Your task to perform on an android device: empty trash in the gmail app Image 0: 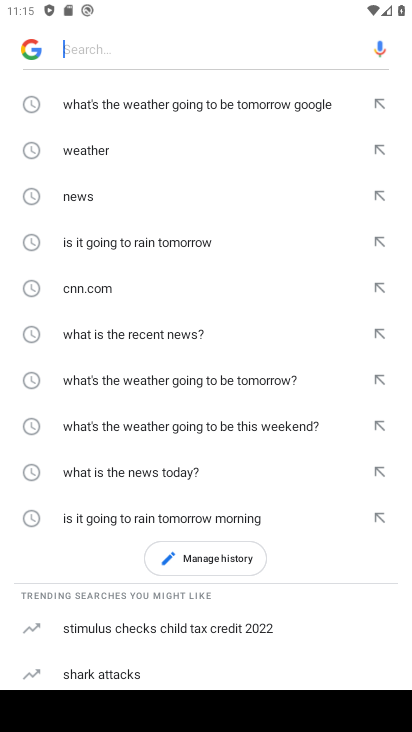
Step 0: press home button
Your task to perform on an android device: empty trash in the gmail app Image 1: 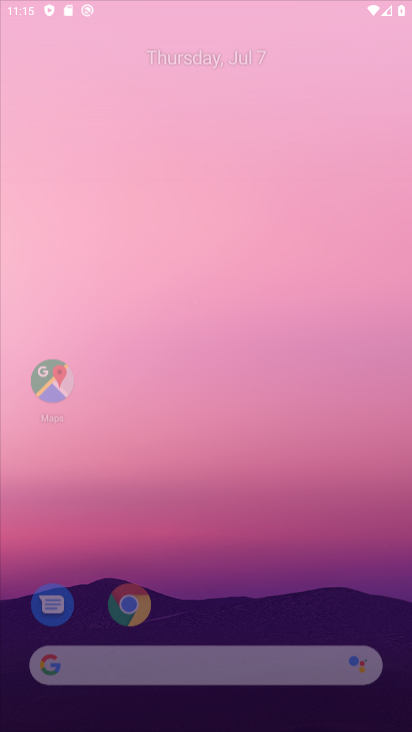
Step 1: drag from (383, 680) to (276, 64)
Your task to perform on an android device: empty trash in the gmail app Image 2: 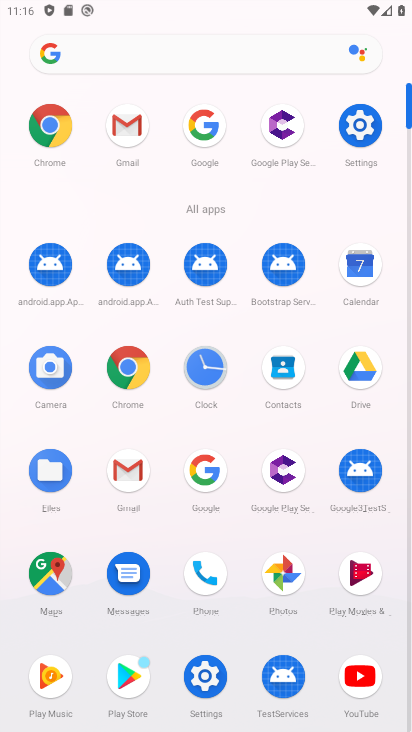
Step 2: click (113, 475)
Your task to perform on an android device: empty trash in the gmail app Image 3: 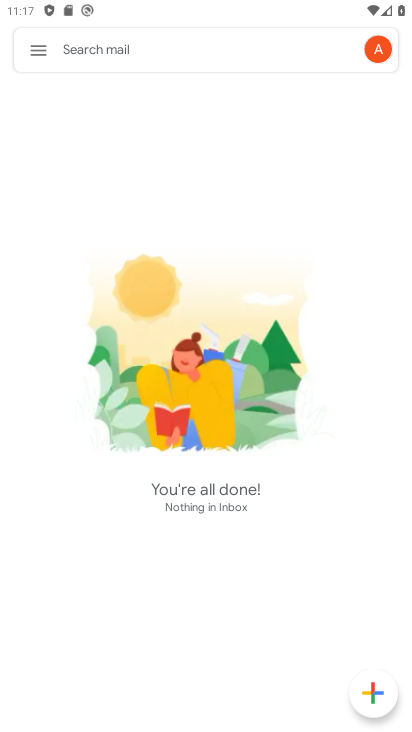
Step 3: click (32, 49)
Your task to perform on an android device: empty trash in the gmail app Image 4: 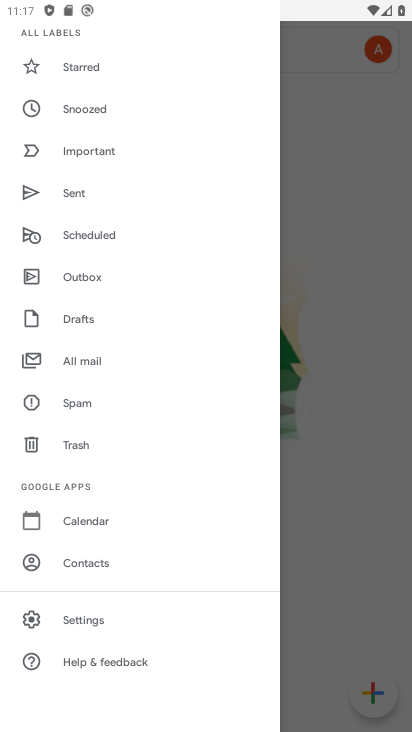
Step 4: click (100, 450)
Your task to perform on an android device: empty trash in the gmail app Image 5: 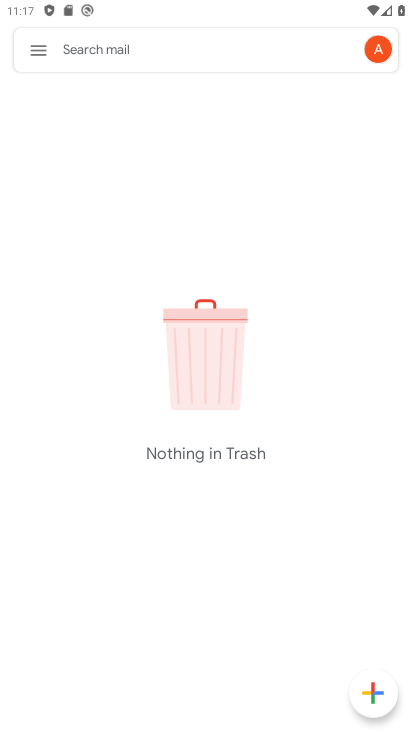
Step 5: task complete